Your task to perform on an android device: toggle translation in the chrome app Image 0: 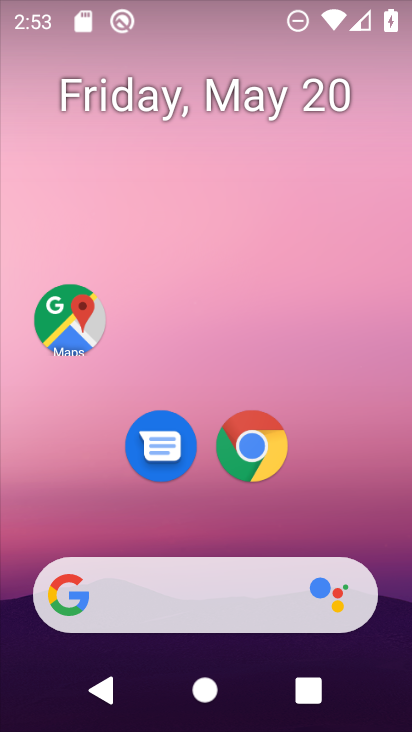
Step 0: click (247, 457)
Your task to perform on an android device: toggle translation in the chrome app Image 1: 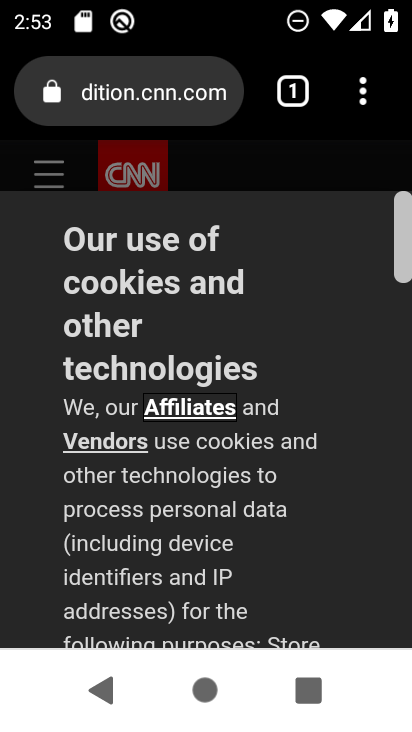
Step 1: click (359, 94)
Your task to perform on an android device: toggle translation in the chrome app Image 2: 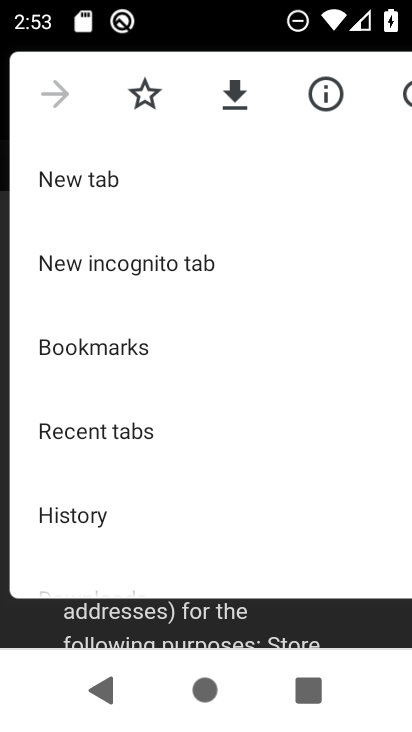
Step 2: drag from (254, 483) to (224, 117)
Your task to perform on an android device: toggle translation in the chrome app Image 3: 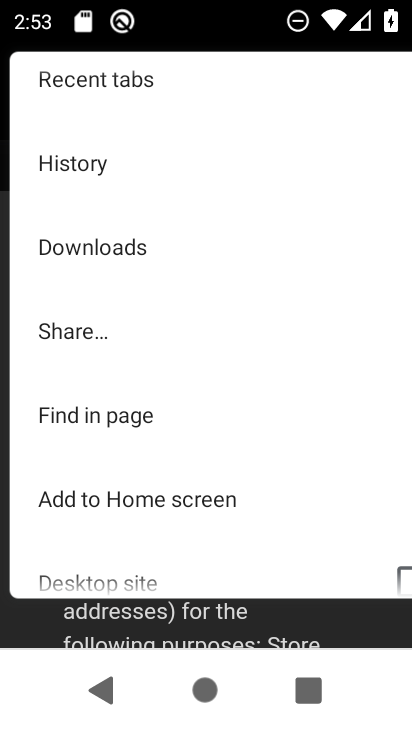
Step 3: drag from (217, 503) to (184, 117)
Your task to perform on an android device: toggle translation in the chrome app Image 4: 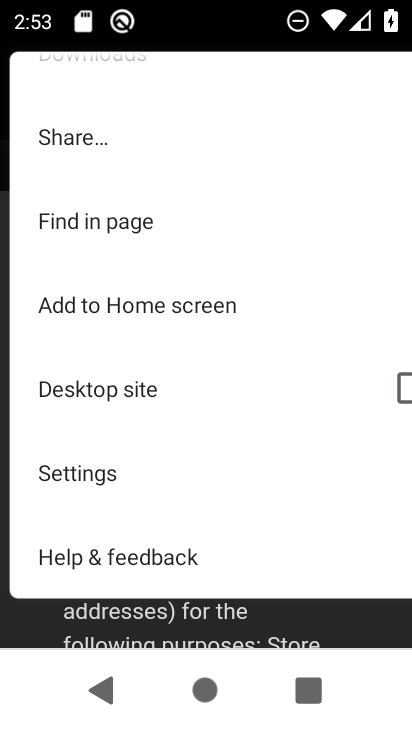
Step 4: click (84, 484)
Your task to perform on an android device: toggle translation in the chrome app Image 5: 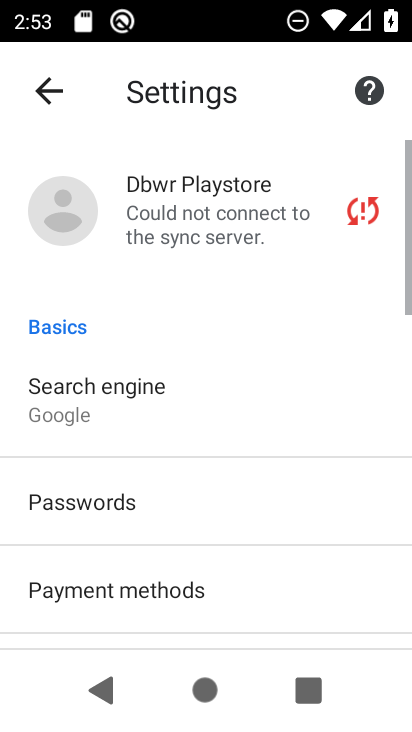
Step 5: drag from (246, 546) to (220, 176)
Your task to perform on an android device: toggle translation in the chrome app Image 6: 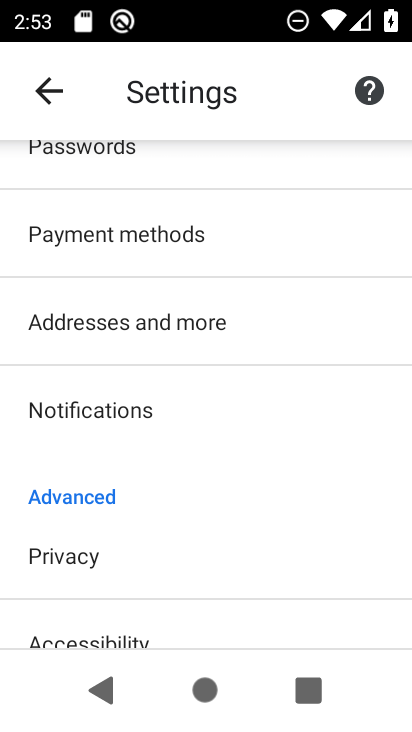
Step 6: drag from (184, 528) to (191, 140)
Your task to perform on an android device: toggle translation in the chrome app Image 7: 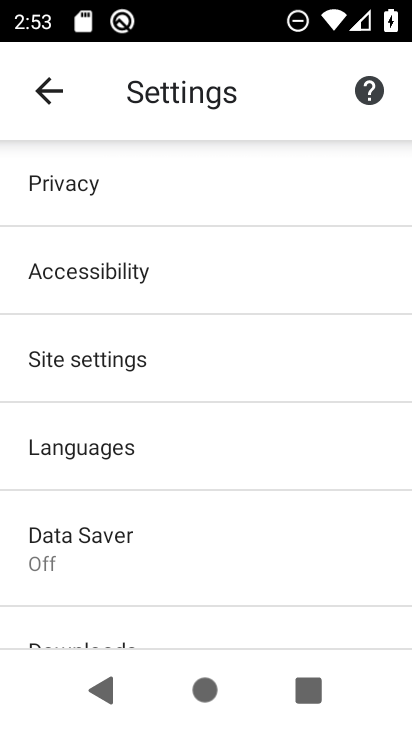
Step 7: click (78, 450)
Your task to perform on an android device: toggle translation in the chrome app Image 8: 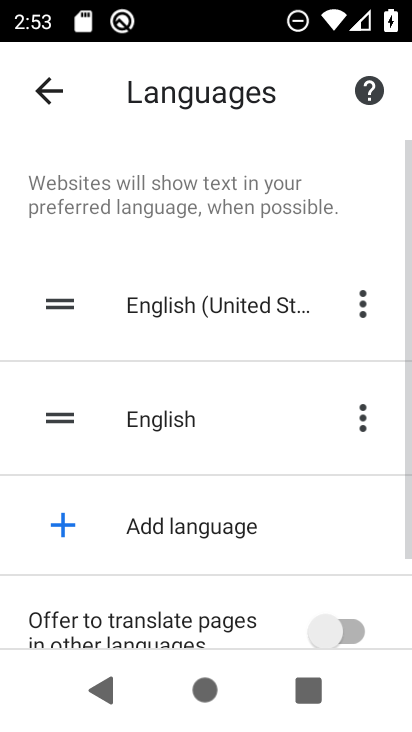
Step 8: drag from (235, 579) to (221, 306)
Your task to perform on an android device: toggle translation in the chrome app Image 9: 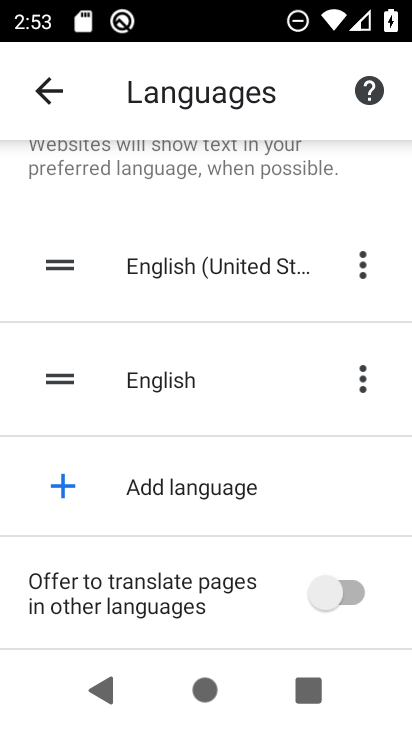
Step 9: click (326, 592)
Your task to perform on an android device: toggle translation in the chrome app Image 10: 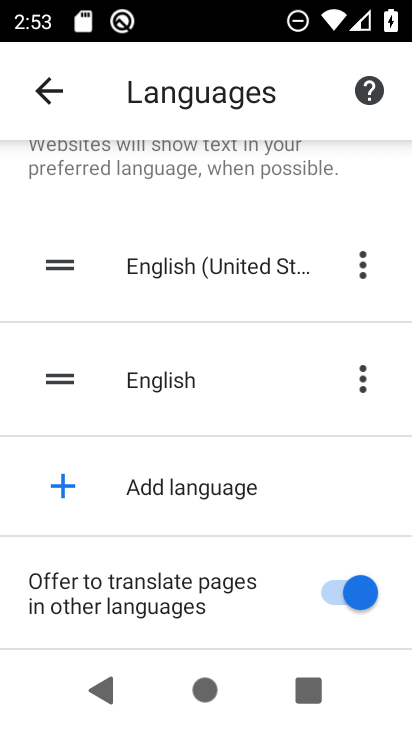
Step 10: task complete